Your task to perform on an android device: turn off location history Image 0: 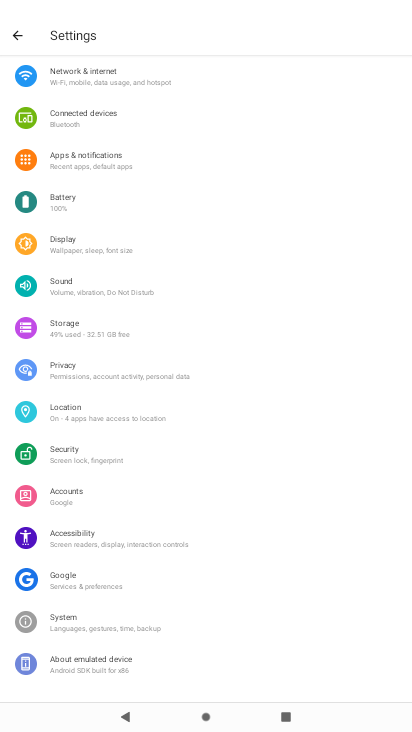
Step 0: press home button
Your task to perform on an android device: turn off location history Image 1: 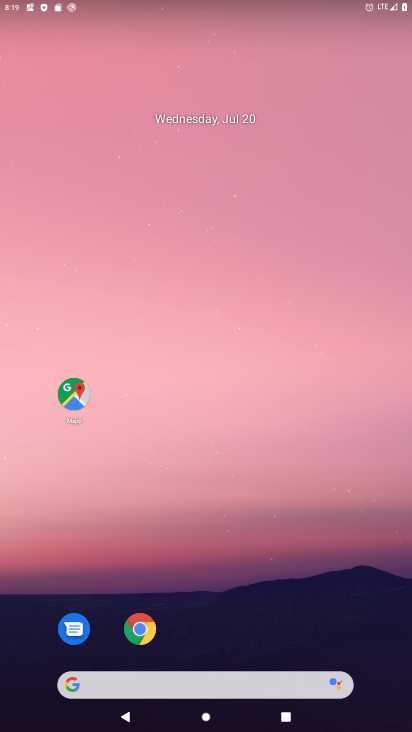
Step 1: drag from (181, 394) to (209, 141)
Your task to perform on an android device: turn off location history Image 2: 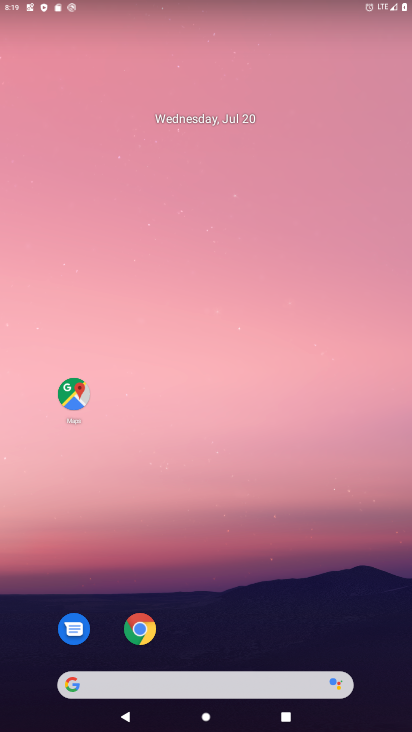
Step 2: drag from (216, 625) to (192, 185)
Your task to perform on an android device: turn off location history Image 3: 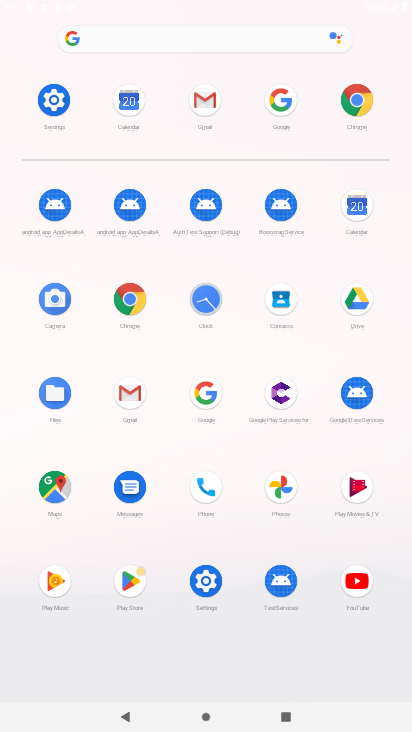
Step 3: click (47, 101)
Your task to perform on an android device: turn off location history Image 4: 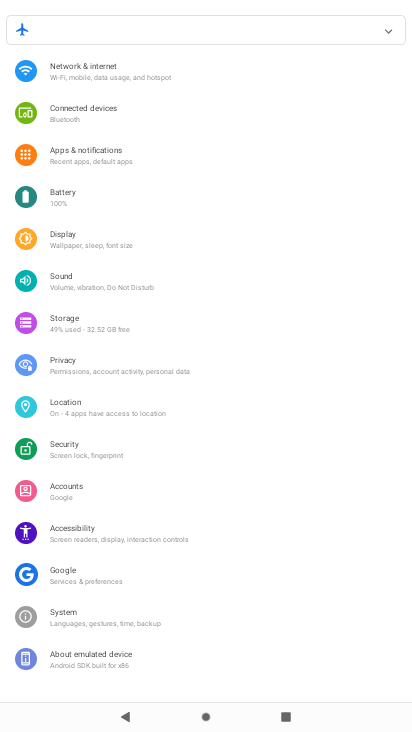
Step 4: click (86, 418)
Your task to perform on an android device: turn off location history Image 5: 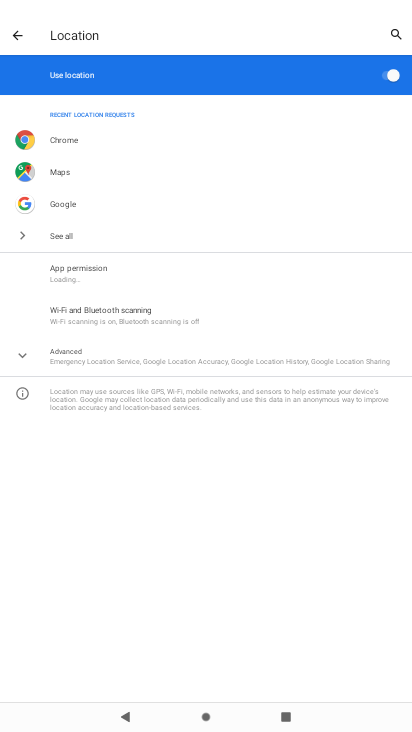
Step 5: click (91, 341)
Your task to perform on an android device: turn off location history Image 6: 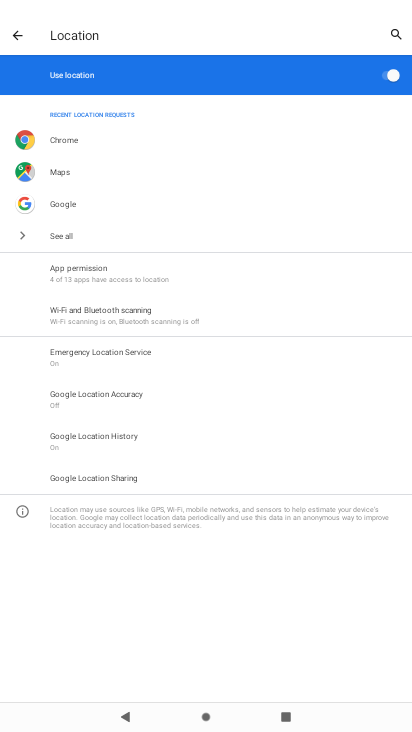
Step 6: click (84, 434)
Your task to perform on an android device: turn off location history Image 7: 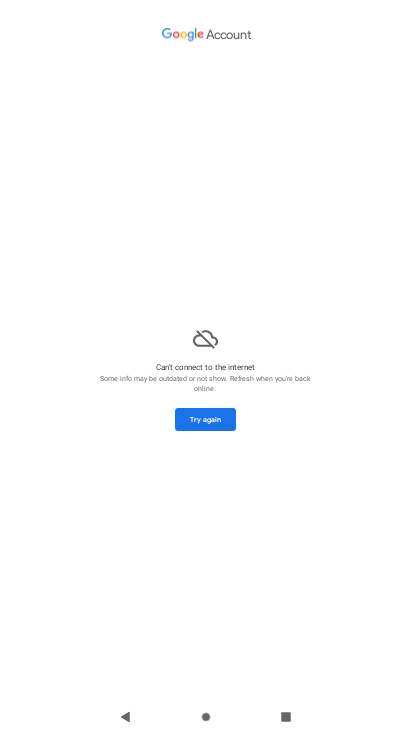
Step 7: task complete